Your task to perform on an android device: Open wifi settings Image 0: 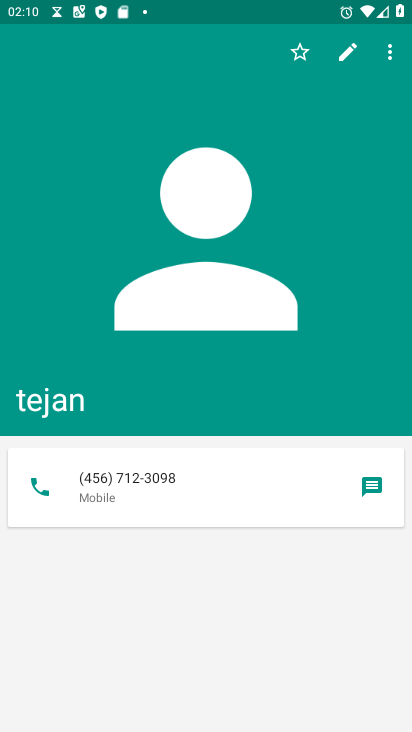
Step 0: press home button
Your task to perform on an android device: Open wifi settings Image 1: 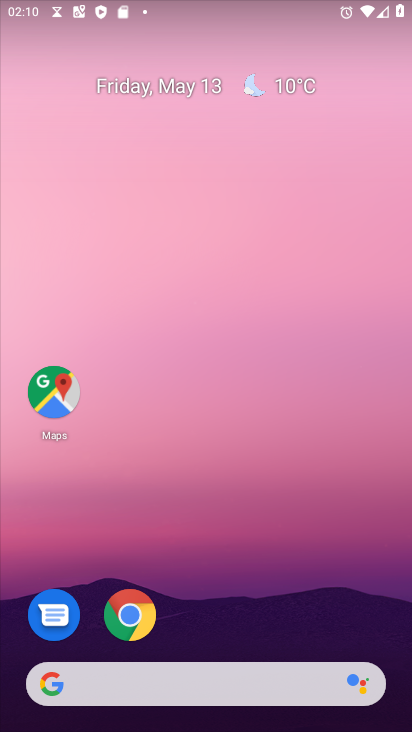
Step 1: drag from (215, 592) to (139, 117)
Your task to perform on an android device: Open wifi settings Image 2: 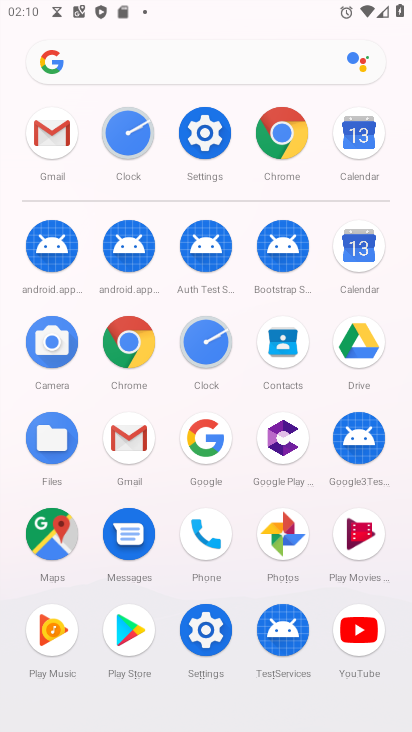
Step 2: click (195, 134)
Your task to perform on an android device: Open wifi settings Image 3: 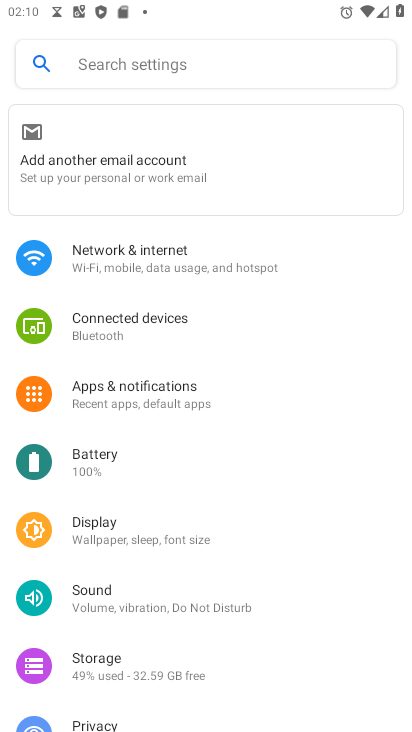
Step 3: click (171, 265)
Your task to perform on an android device: Open wifi settings Image 4: 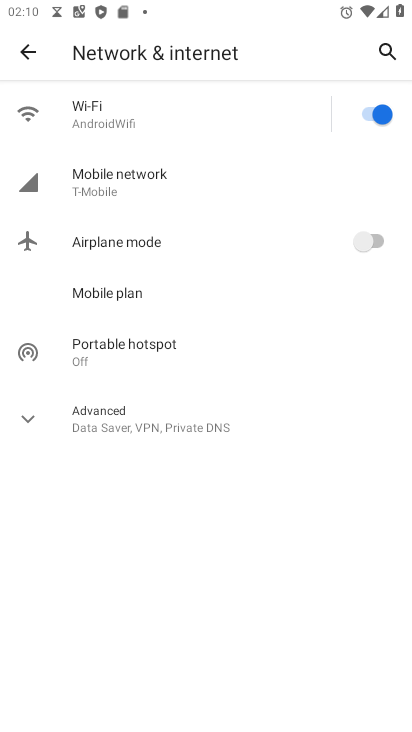
Step 4: click (145, 111)
Your task to perform on an android device: Open wifi settings Image 5: 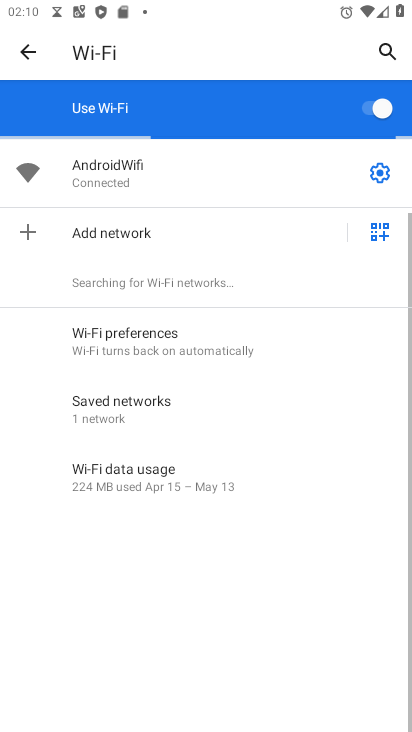
Step 5: task complete